Your task to perform on an android device: change the clock display to show seconds Image 0: 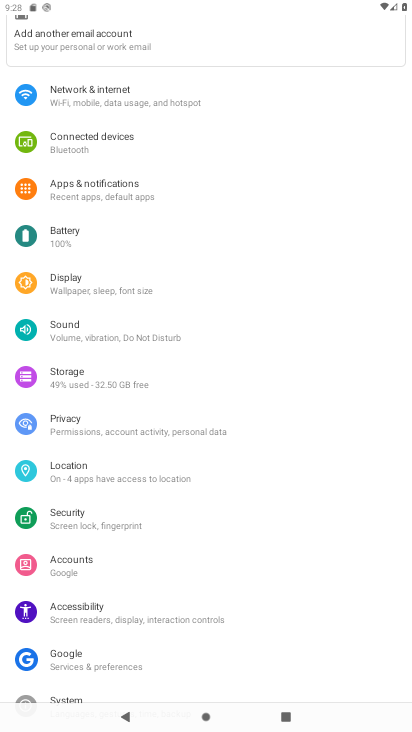
Step 0: press home button
Your task to perform on an android device: change the clock display to show seconds Image 1: 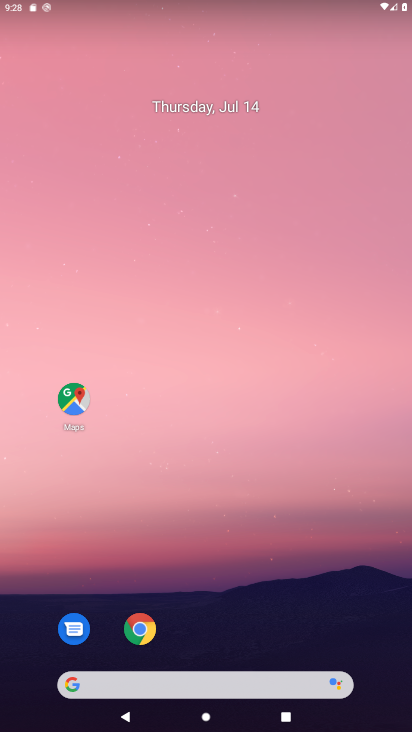
Step 1: drag from (259, 640) to (323, 176)
Your task to perform on an android device: change the clock display to show seconds Image 2: 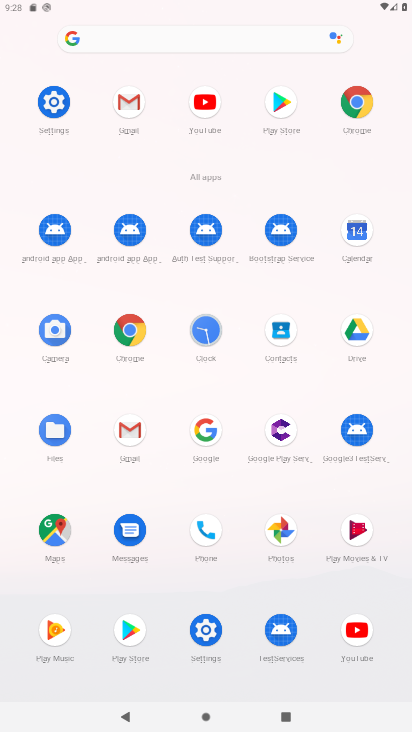
Step 2: click (205, 317)
Your task to perform on an android device: change the clock display to show seconds Image 3: 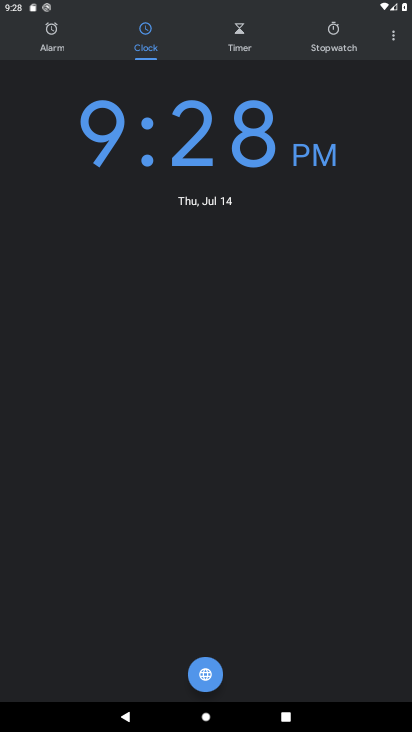
Step 3: click (396, 38)
Your task to perform on an android device: change the clock display to show seconds Image 4: 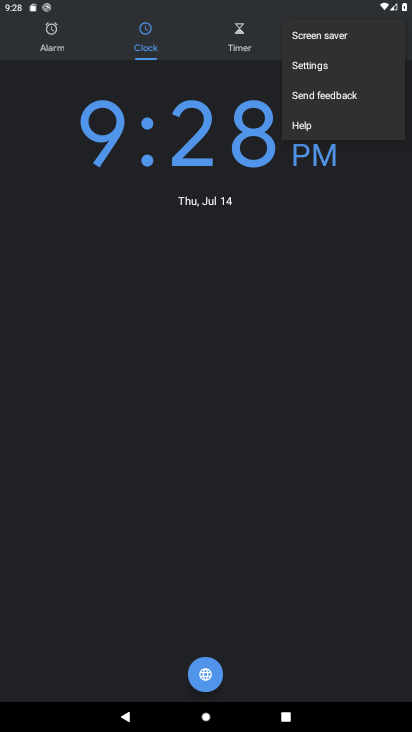
Step 4: click (323, 62)
Your task to perform on an android device: change the clock display to show seconds Image 5: 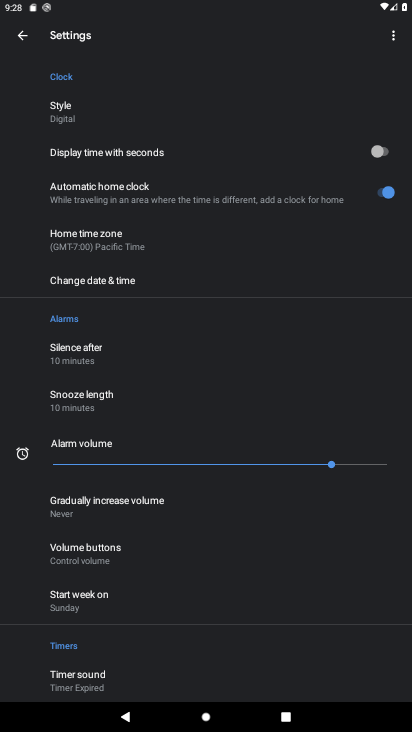
Step 5: click (173, 150)
Your task to perform on an android device: change the clock display to show seconds Image 6: 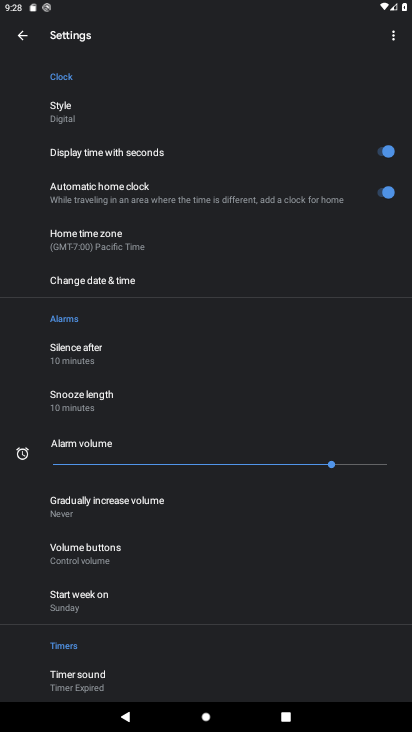
Step 6: task complete